Your task to perform on an android device: Clear the cart on walmart. Add acer nitro to the cart on walmart, then select checkout. Image 0: 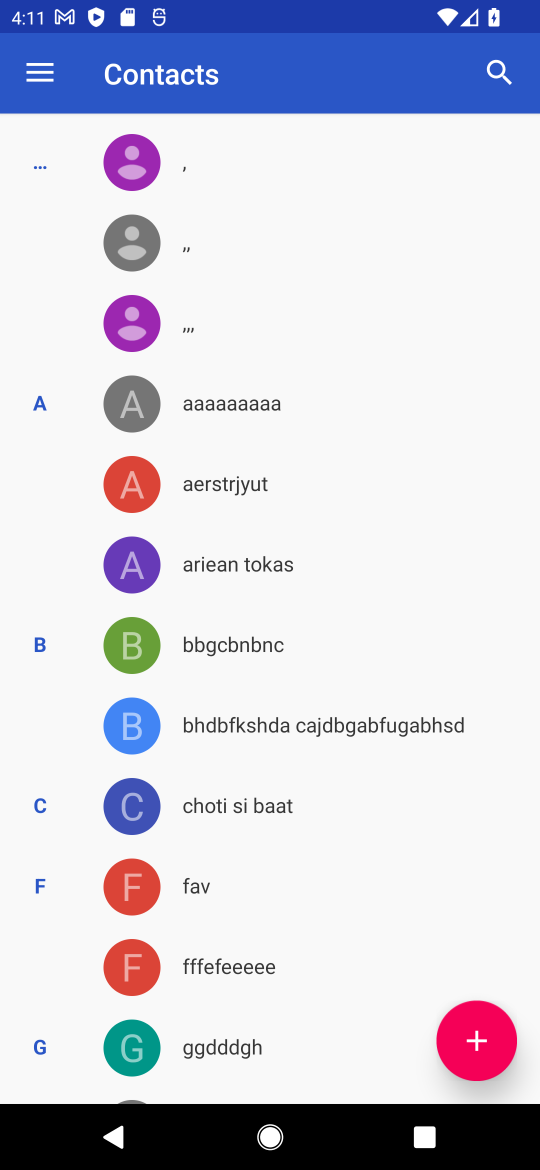
Step 0: press home button
Your task to perform on an android device: Clear the cart on walmart. Add acer nitro to the cart on walmart, then select checkout. Image 1: 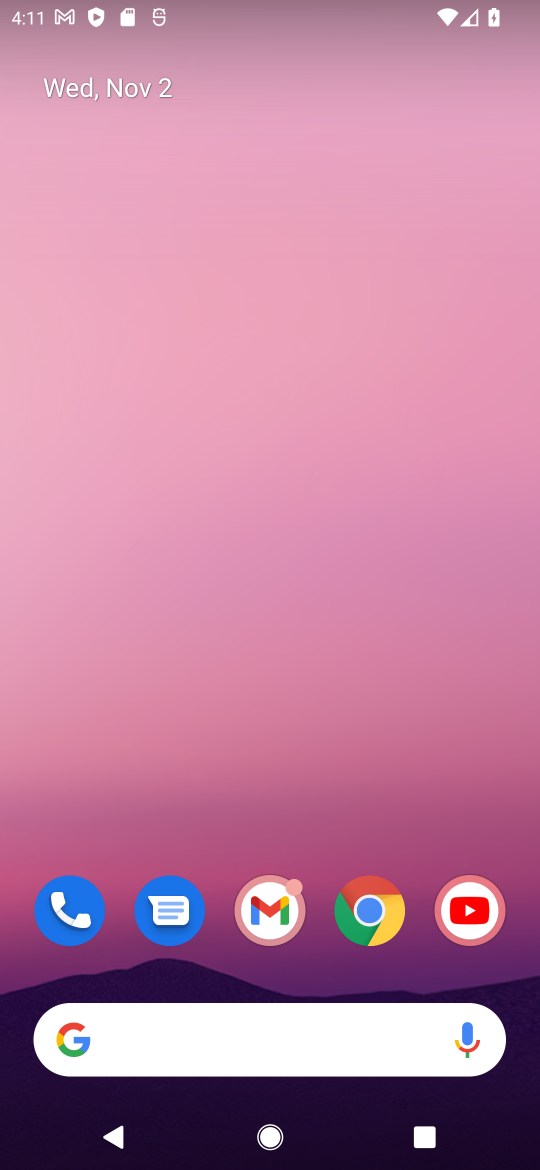
Step 1: click (371, 904)
Your task to perform on an android device: Clear the cart on walmart. Add acer nitro to the cart on walmart, then select checkout. Image 2: 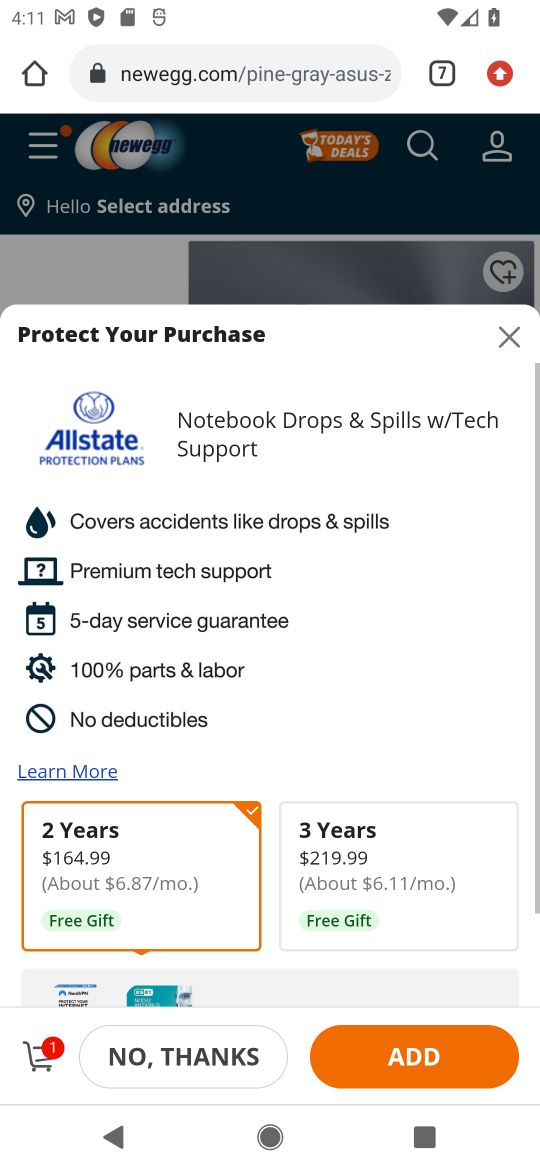
Step 2: click (443, 62)
Your task to perform on an android device: Clear the cart on walmart. Add acer nitro to the cart on walmart, then select checkout. Image 3: 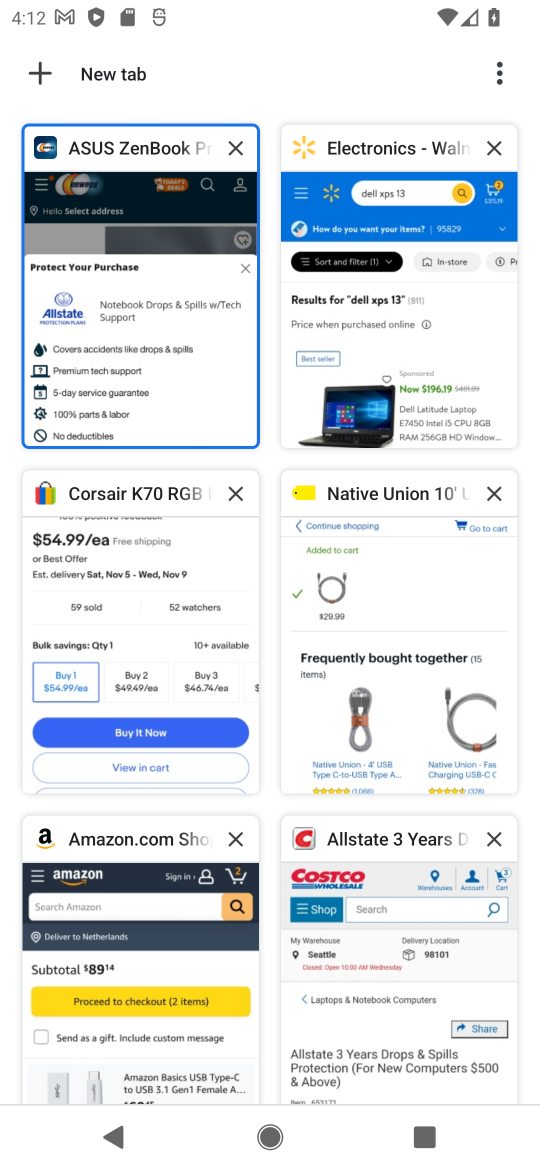
Step 3: click (397, 315)
Your task to perform on an android device: Clear the cart on walmart. Add acer nitro to the cart on walmart, then select checkout. Image 4: 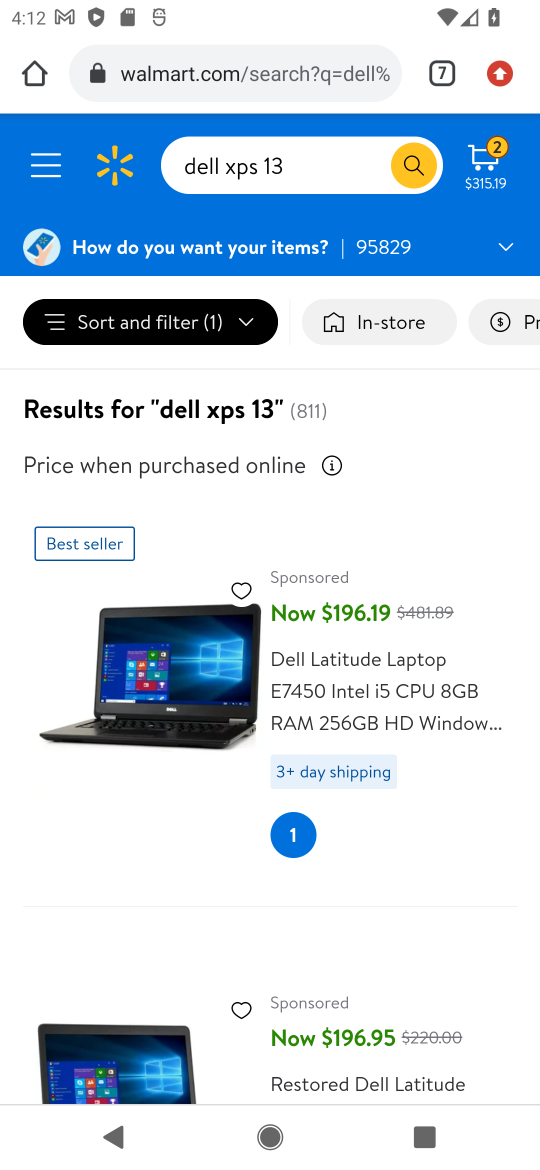
Step 4: click (512, 164)
Your task to perform on an android device: Clear the cart on walmart. Add acer nitro to the cart on walmart, then select checkout. Image 5: 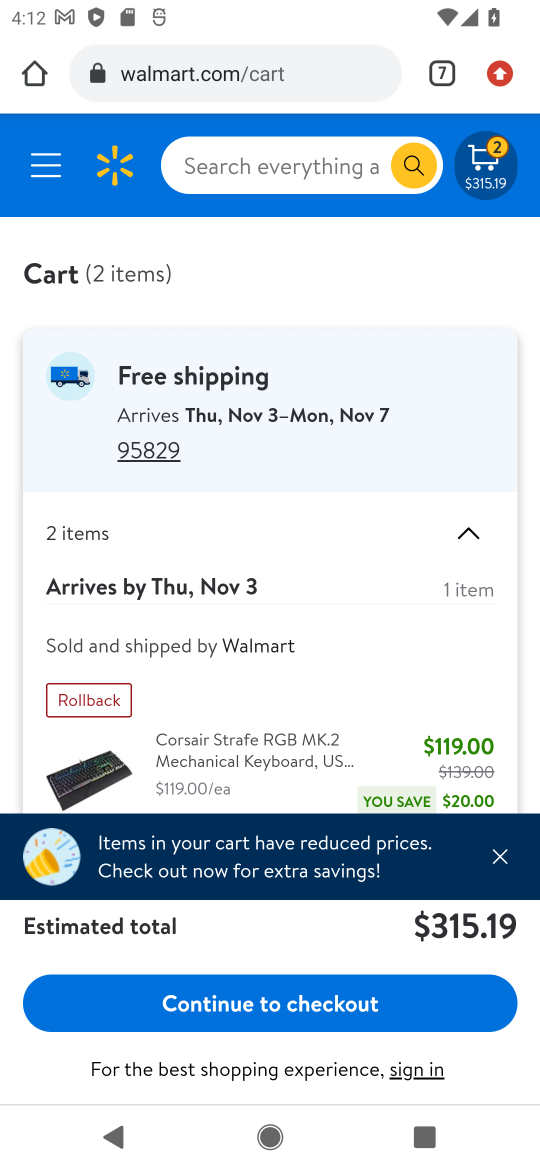
Step 5: click (505, 855)
Your task to perform on an android device: Clear the cart on walmart. Add acer nitro to the cart on walmart, then select checkout. Image 6: 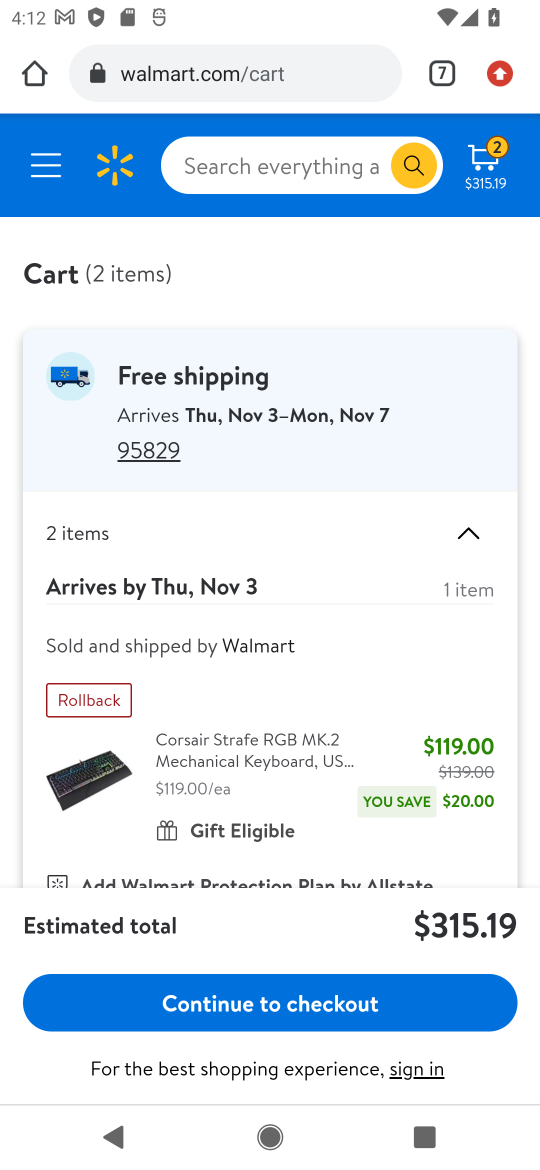
Step 6: drag from (254, 782) to (294, 353)
Your task to perform on an android device: Clear the cart on walmart. Add acer nitro to the cart on walmart, then select checkout. Image 7: 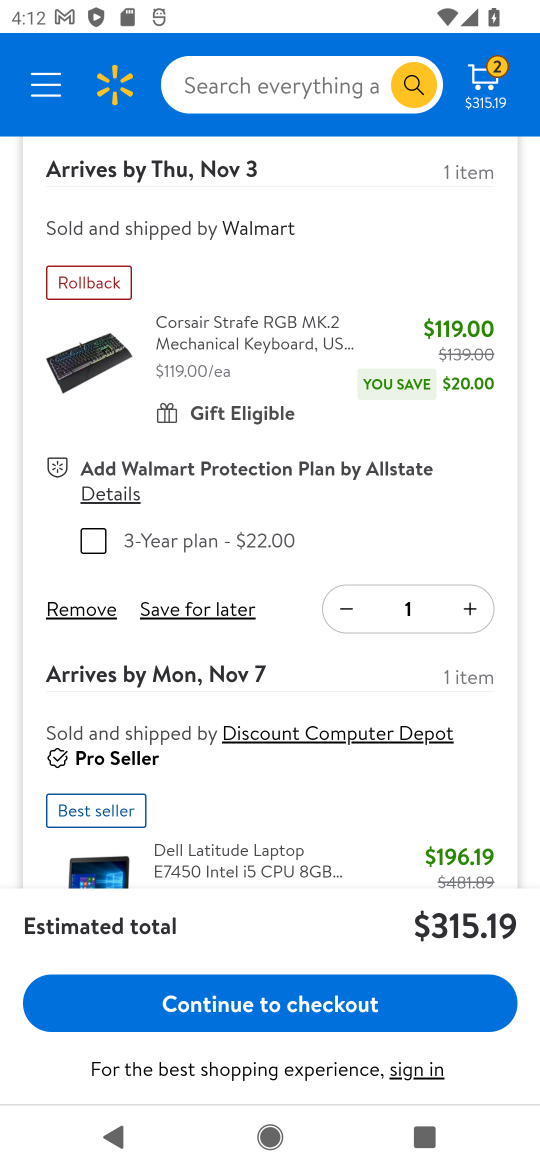
Step 7: click (91, 606)
Your task to perform on an android device: Clear the cart on walmart. Add acer nitro to the cart on walmart, then select checkout. Image 8: 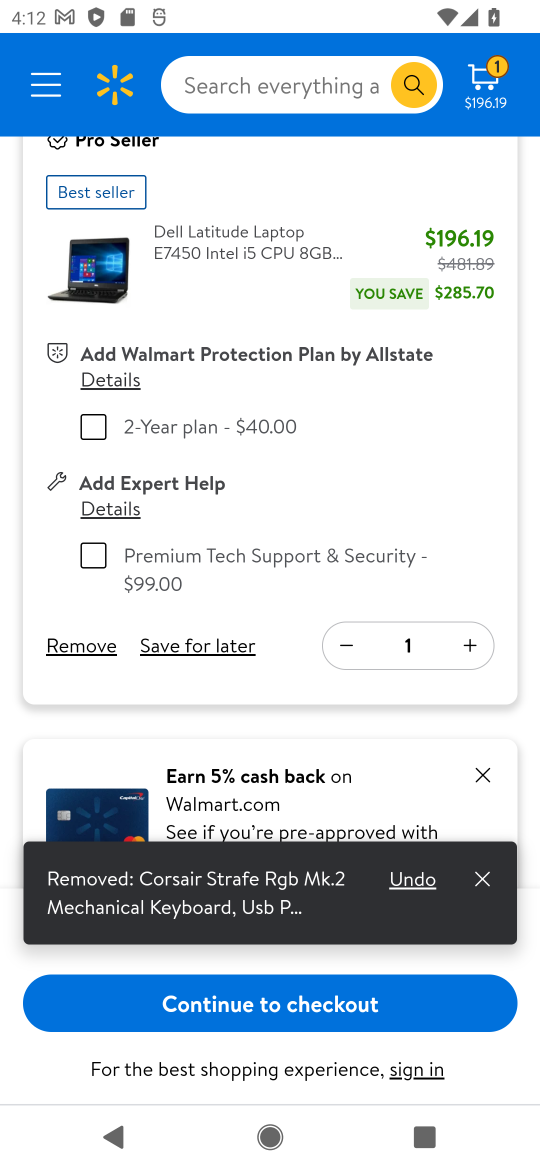
Step 8: click (92, 645)
Your task to perform on an android device: Clear the cart on walmart. Add acer nitro to the cart on walmart, then select checkout. Image 9: 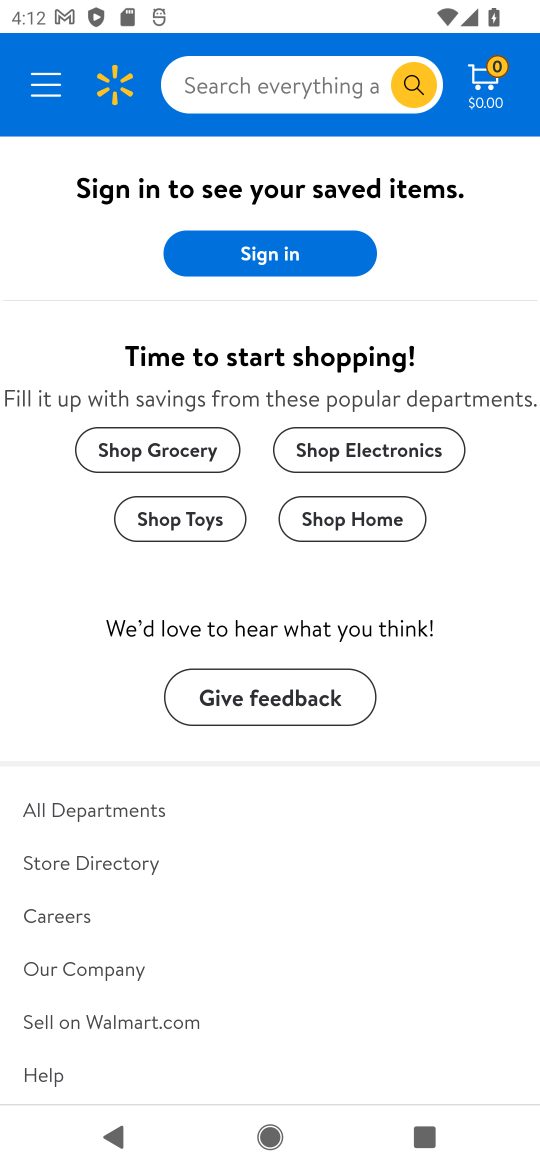
Step 9: click (271, 81)
Your task to perform on an android device: Clear the cart on walmart. Add acer nitro to the cart on walmart, then select checkout. Image 10: 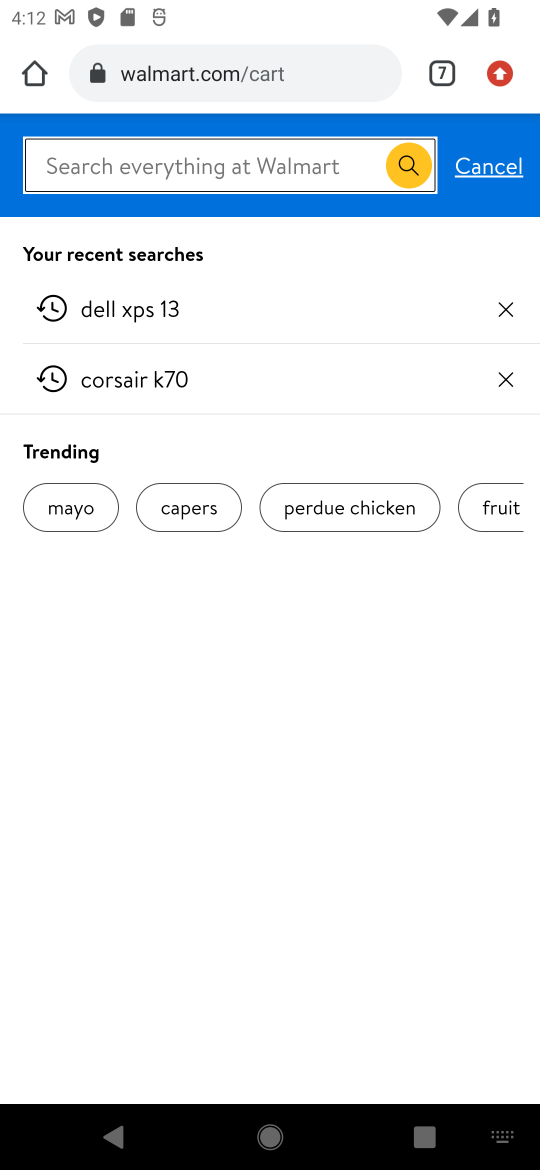
Step 10: type "acer nitro"
Your task to perform on an android device: Clear the cart on walmart. Add acer nitro to the cart on walmart, then select checkout. Image 11: 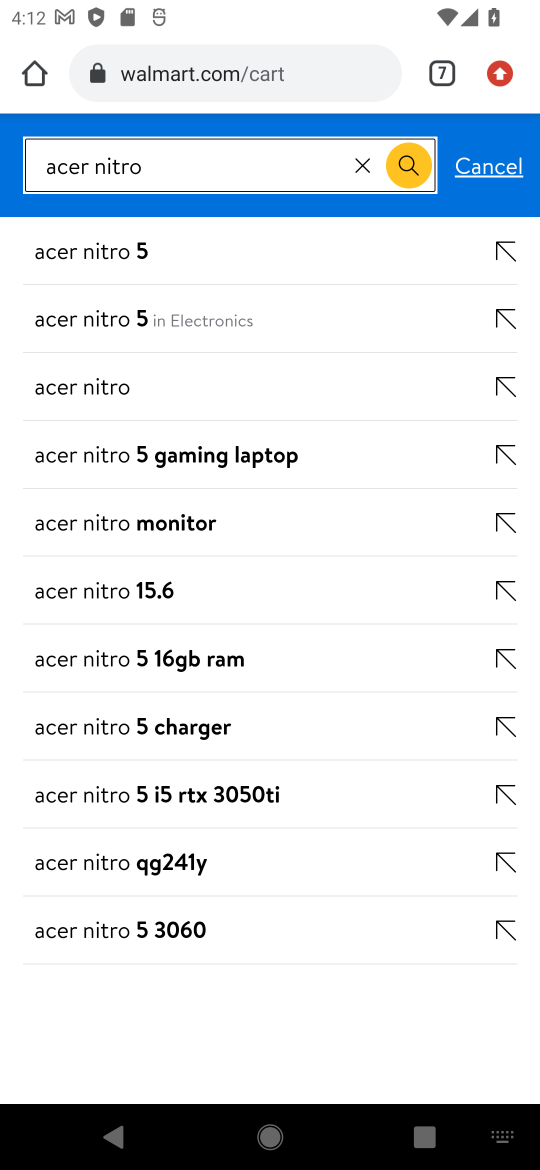
Step 11: click (157, 321)
Your task to perform on an android device: Clear the cart on walmart. Add acer nitro to the cart on walmart, then select checkout. Image 12: 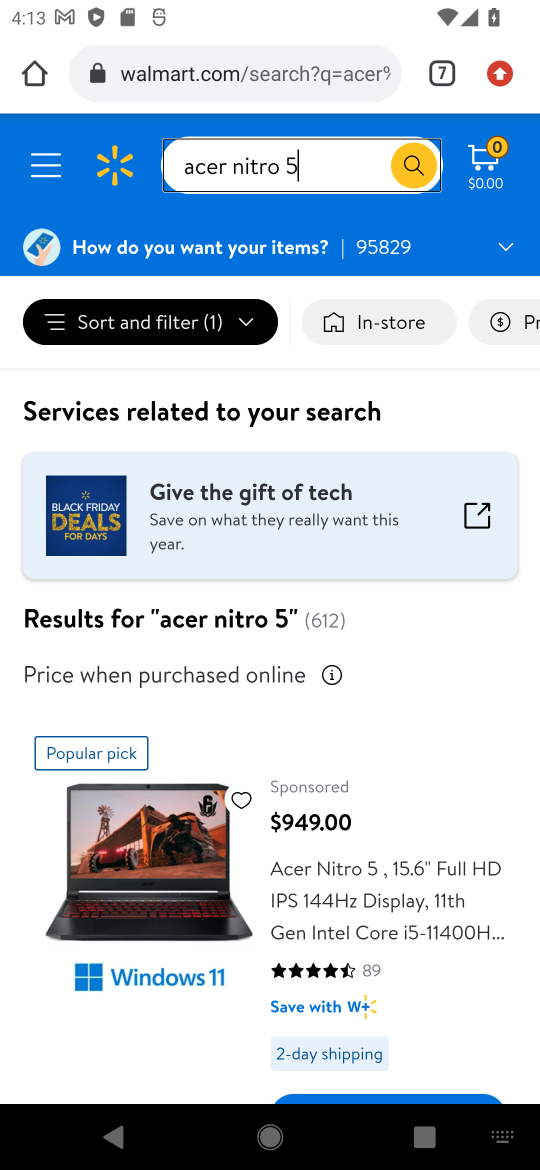
Step 12: drag from (344, 885) to (331, 322)
Your task to perform on an android device: Clear the cart on walmart. Add acer nitro to the cart on walmart, then select checkout. Image 13: 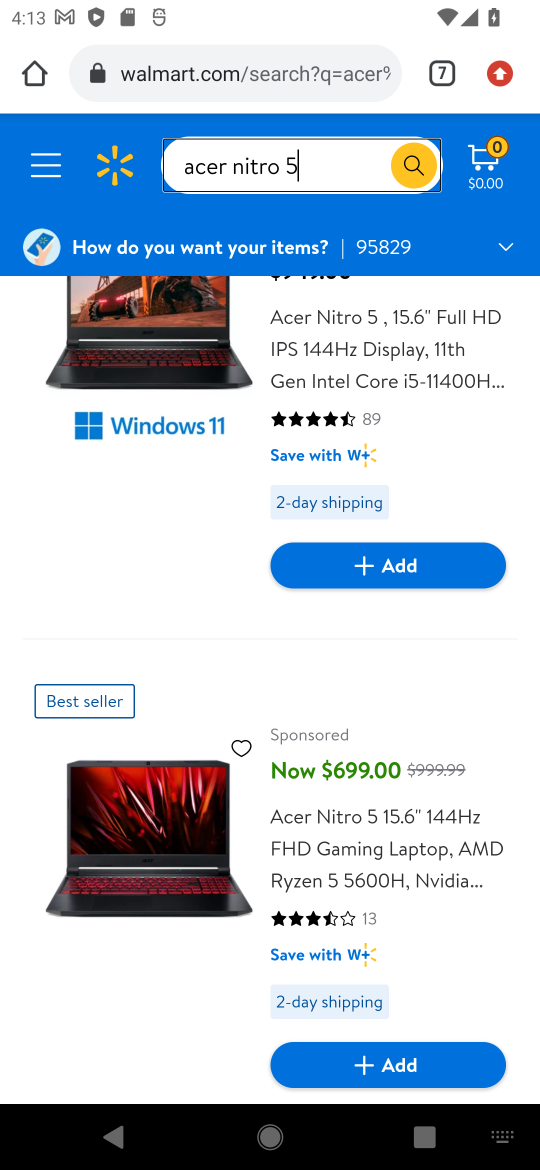
Step 13: click (403, 569)
Your task to perform on an android device: Clear the cart on walmart. Add acer nitro to the cart on walmart, then select checkout. Image 14: 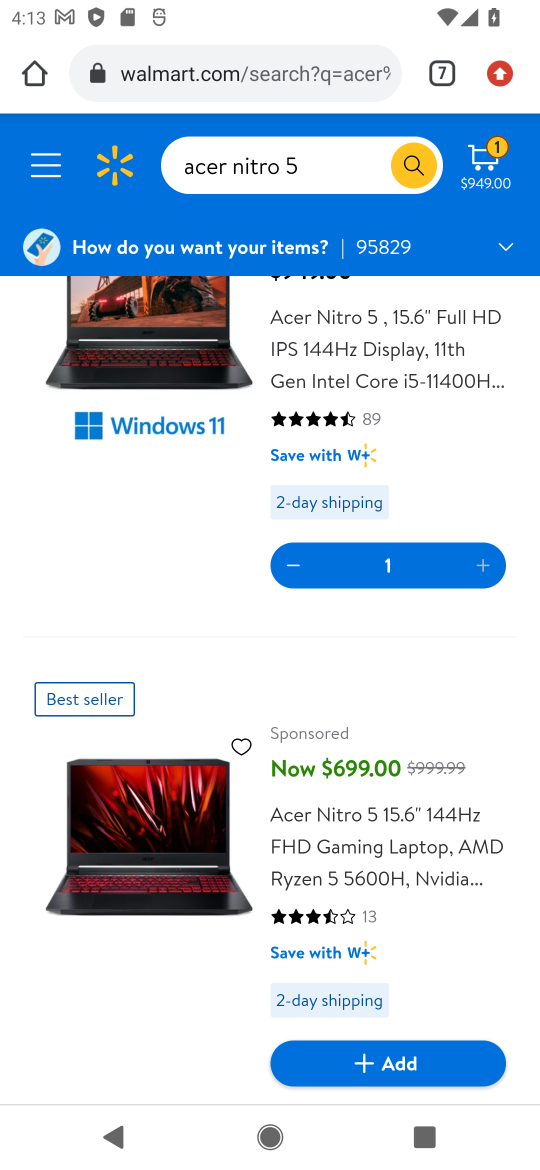
Step 14: task complete